Your task to perform on an android device: Open maps Image 0: 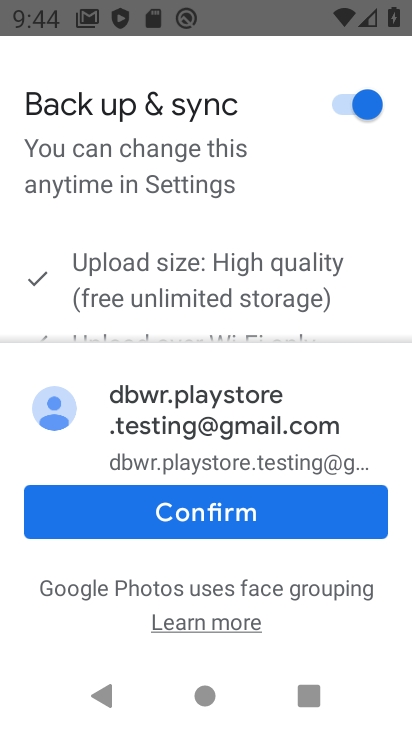
Step 0: press home button
Your task to perform on an android device: Open maps Image 1: 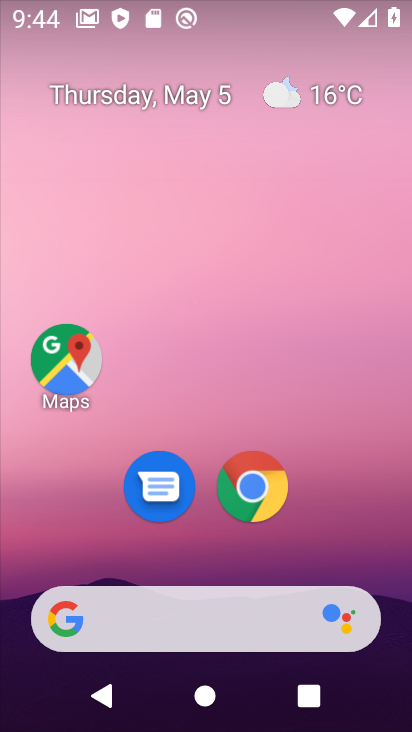
Step 1: drag from (93, 599) to (188, 115)
Your task to perform on an android device: Open maps Image 2: 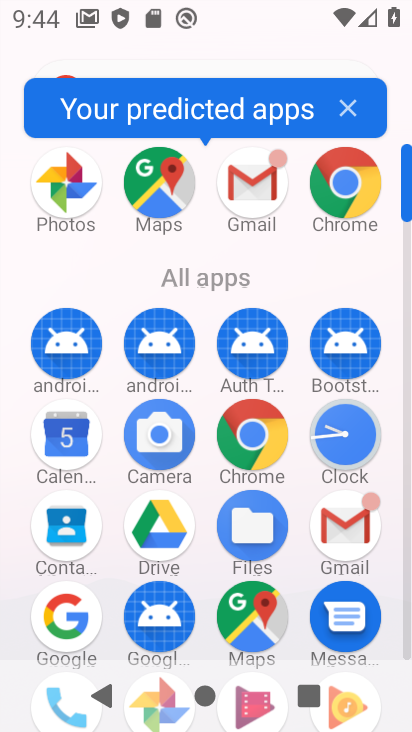
Step 2: click (245, 623)
Your task to perform on an android device: Open maps Image 3: 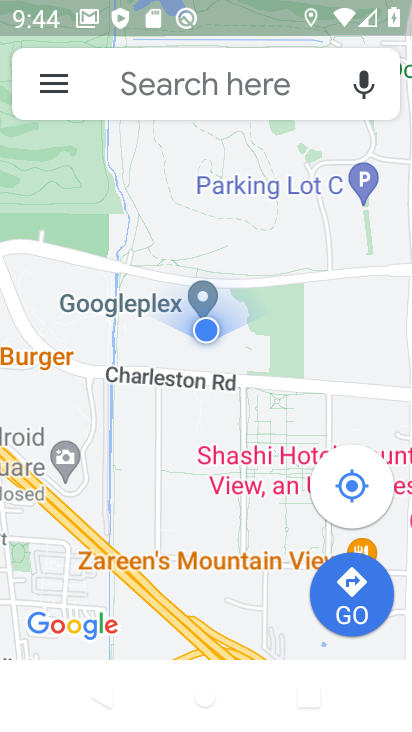
Step 3: task complete